Your task to perform on an android device: Go to Yahoo.com Image 0: 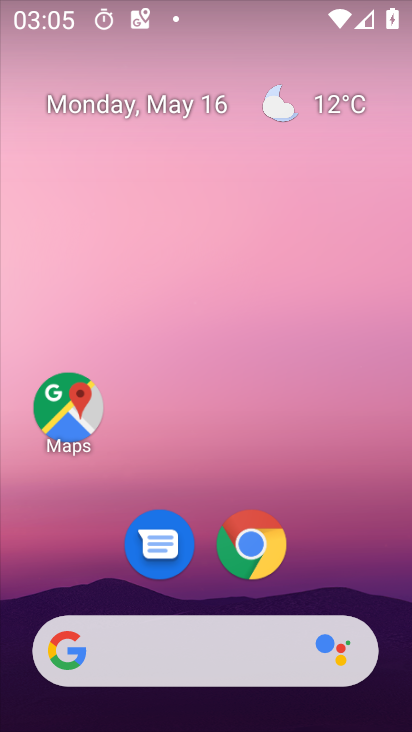
Step 0: click (246, 555)
Your task to perform on an android device: Go to Yahoo.com Image 1: 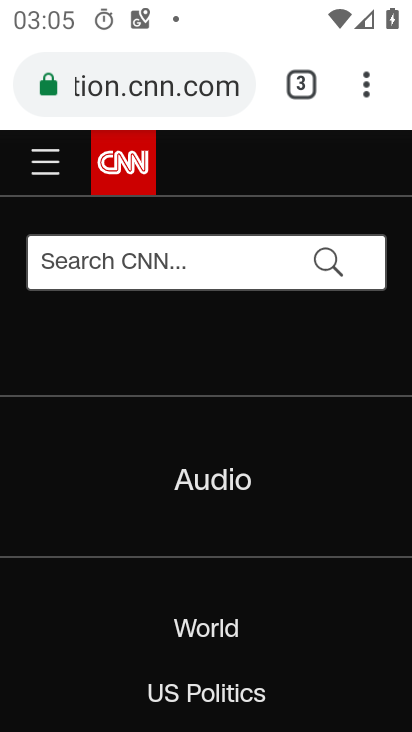
Step 1: click (364, 96)
Your task to perform on an android device: Go to Yahoo.com Image 2: 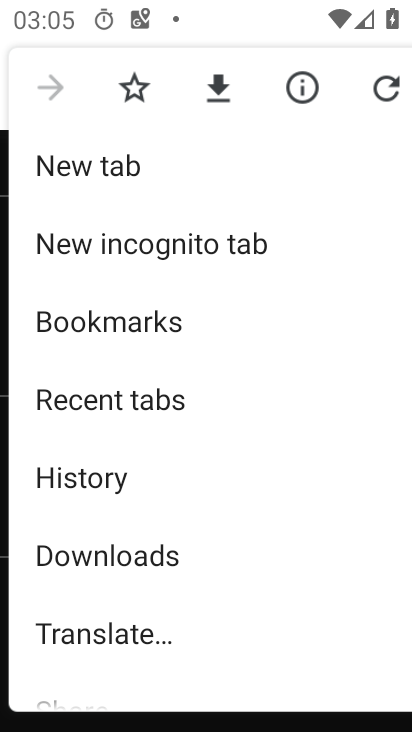
Step 2: click (117, 162)
Your task to perform on an android device: Go to Yahoo.com Image 3: 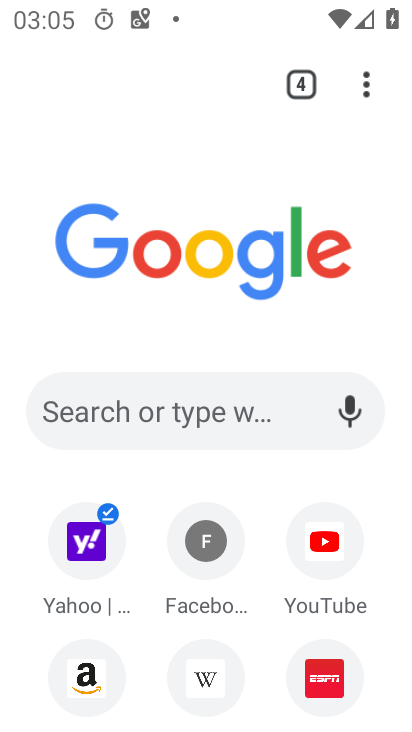
Step 3: click (90, 557)
Your task to perform on an android device: Go to Yahoo.com Image 4: 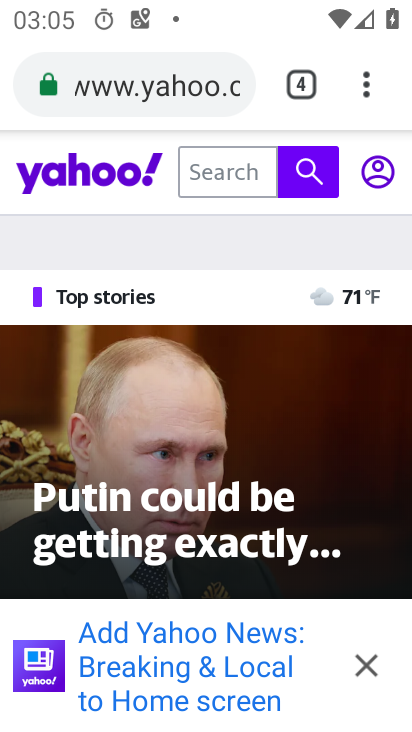
Step 4: task complete